Your task to perform on an android device: Go to notification settings Image 0: 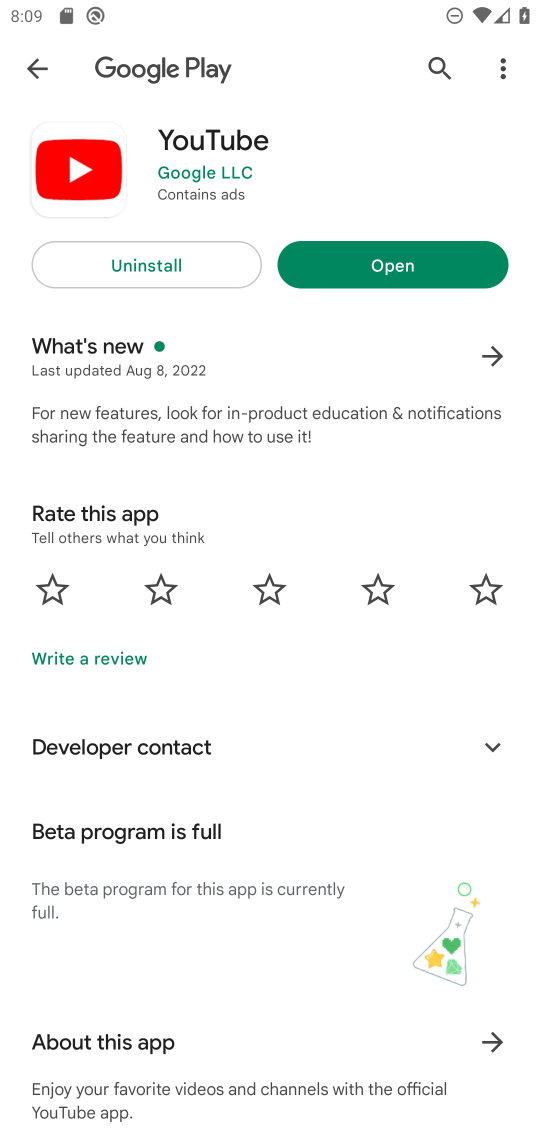
Step 0: press home button
Your task to perform on an android device: Go to notification settings Image 1: 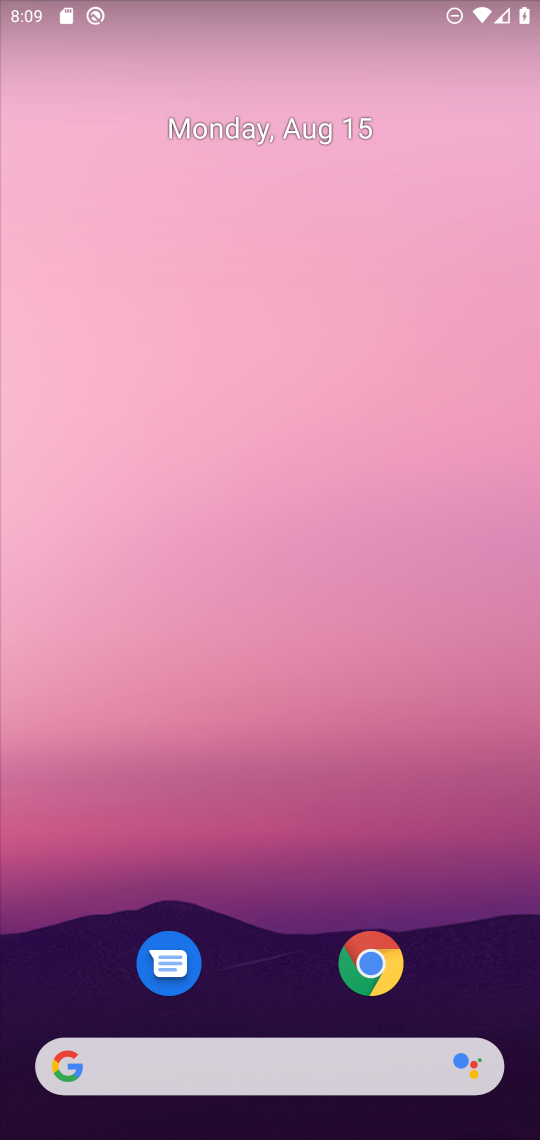
Step 1: drag from (256, 844) to (226, 89)
Your task to perform on an android device: Go to notification settings Image 2: 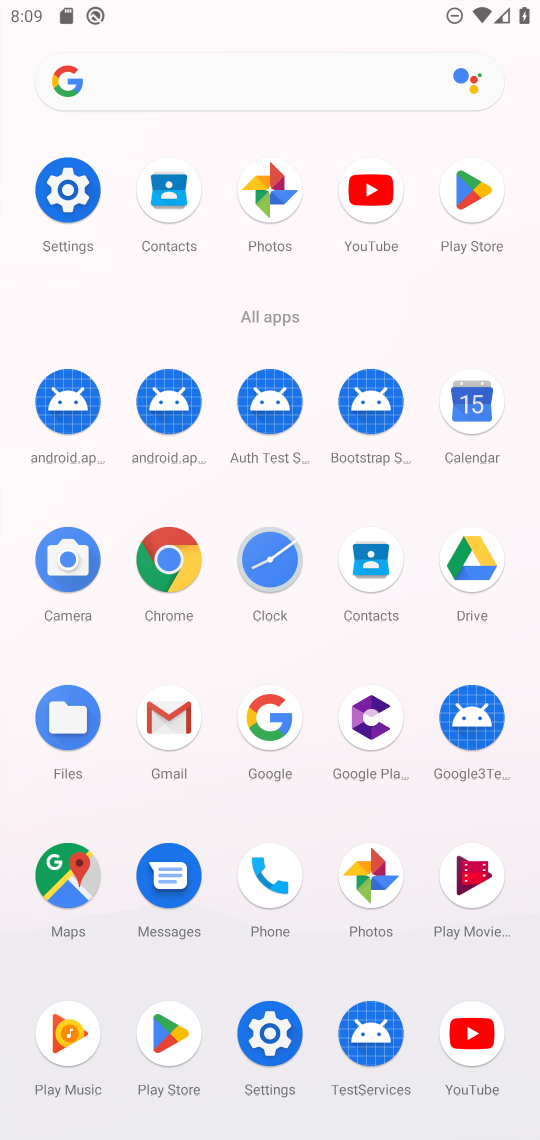
Step 2: click (67, 190)
Your task to perform on an android device: Go to notification settings Image 3: 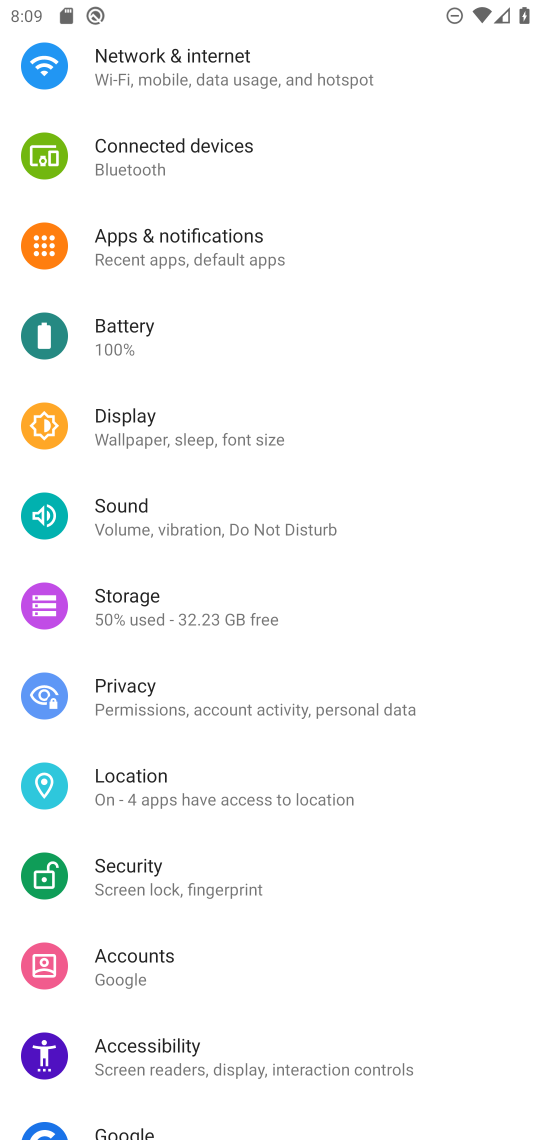
Step 3: click (189, 233)
Your task to perform on an android device: Go to notification settings Image 4: 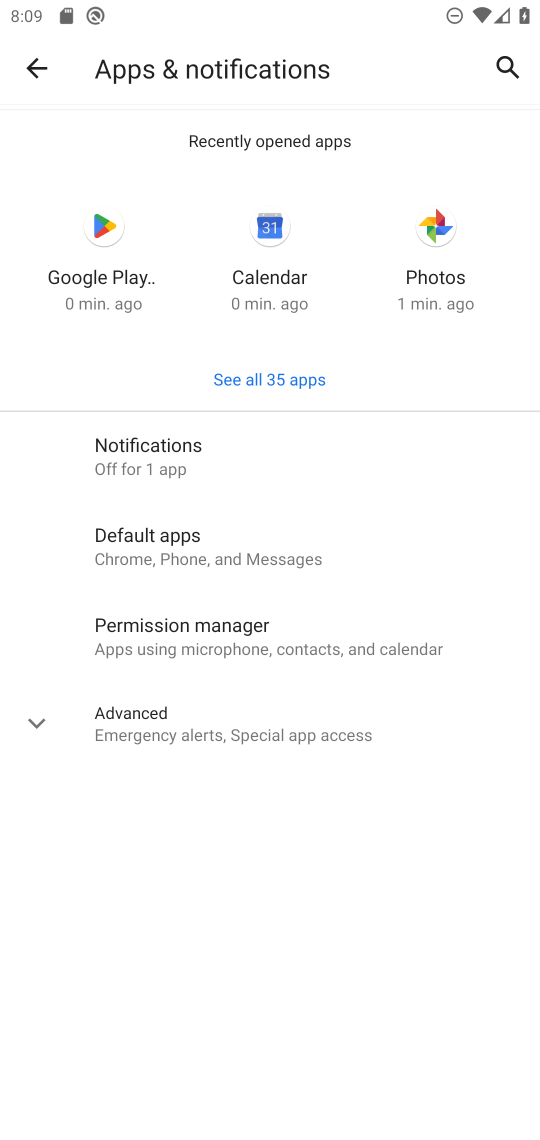
Step 4: task complete